Your task to perform on an android device: Check the news Image 0: 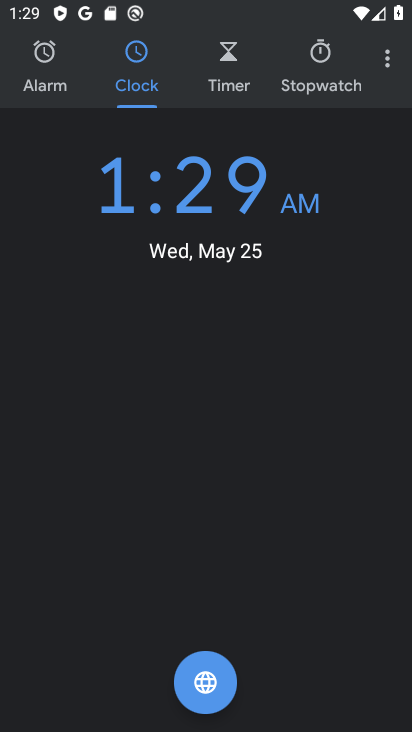
Step 0: press back button
Your task to perform on an android device: Check the news Image 1: 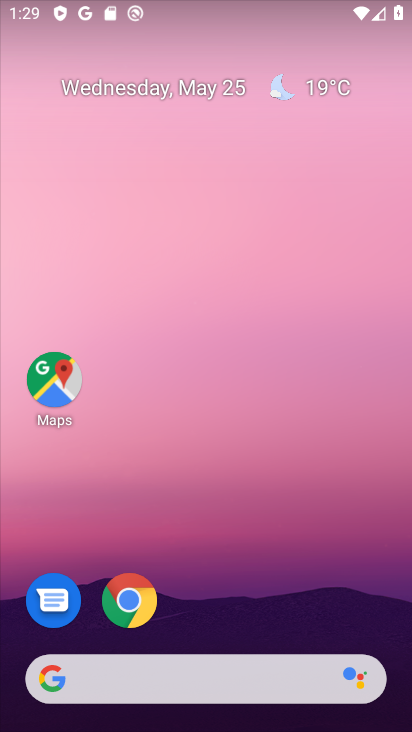
Step 1: task complete